Your task to perform on an android device: choose inbox layout in the gmail app Image 0: 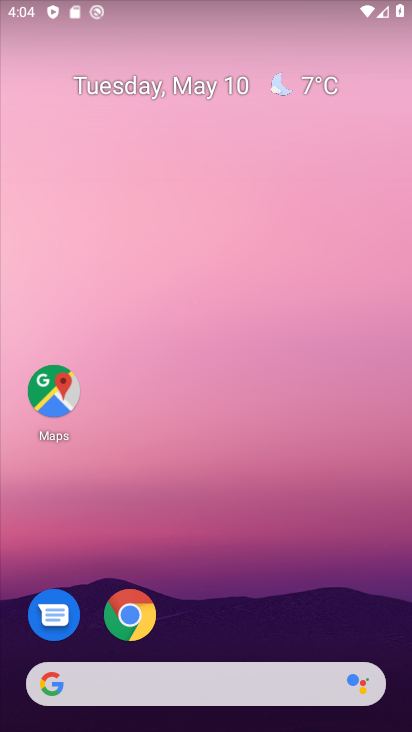
Step 0: drag from (241, 533) to (192, 63)
Your task to perform on an android device: choose inbox layout in the gmail app Image 1: 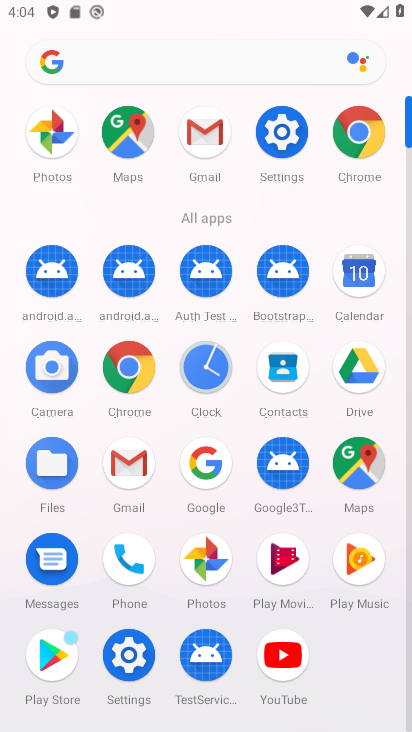
Step 1: drag from (3, 531) to (17, 269)
Your task to perform on an android device: choose inbox layout in the gmail app Image 2: 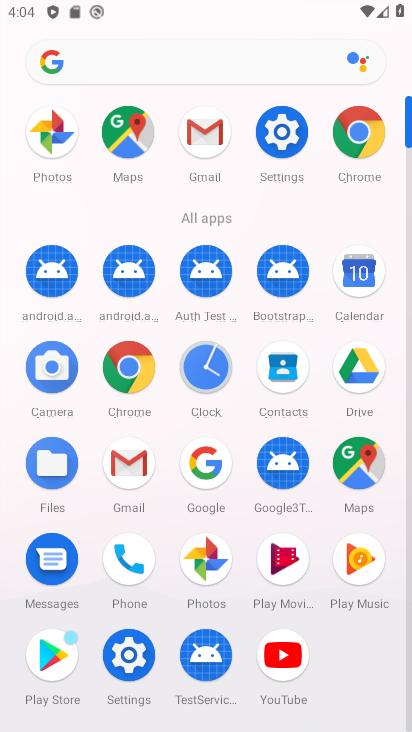
Step 2: click (128, 456)
Your task to perform on an android device: choose inbox layout in the gmail app Image 3: 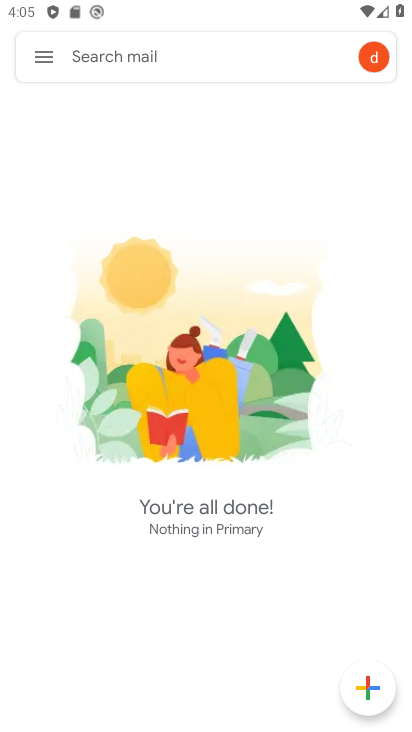
Step 3: click (32, 57)
Your task to perform on an android device: choose inbox layout in the gmail app Image 4: 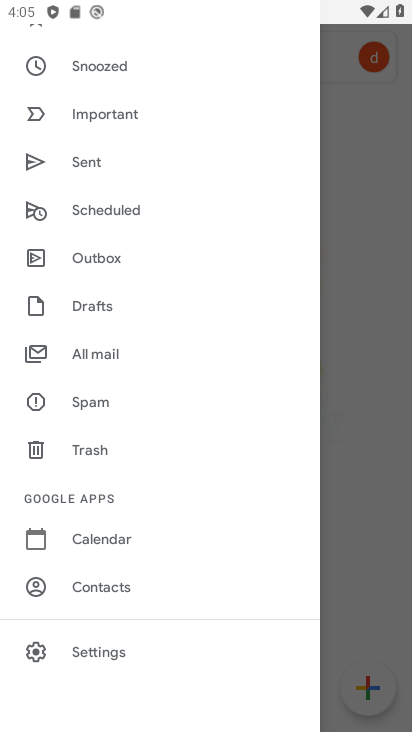
Step 4: drag from (171, 565) to (185, 183)
Your task to perform on an android device: choose inbox layout in the gmail app Image 5: 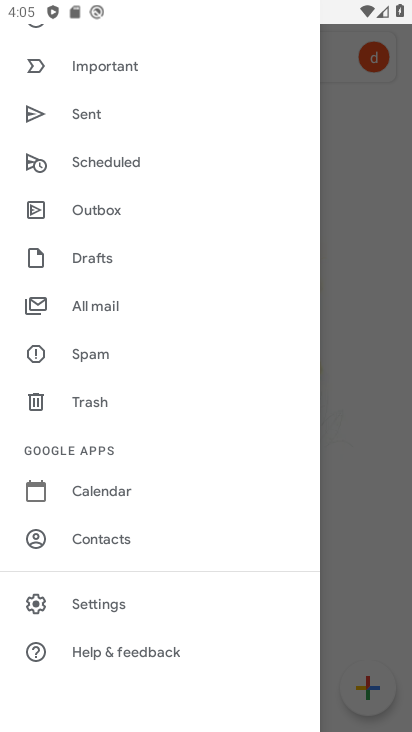
Step 5: click (130, 590)
Your task to perform on an android device: choose inbox layout in the gmail app Image 6: 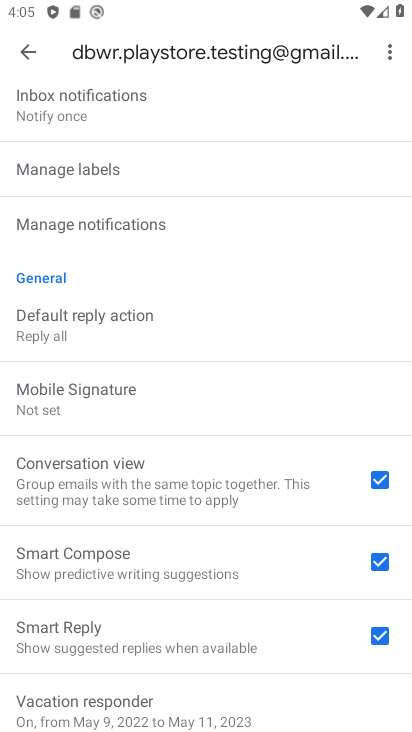
Step 6: drag from (207, 584) to (242, 199)
Your task to perform on an android device: choose inbox layout in the gmail app Image 7: 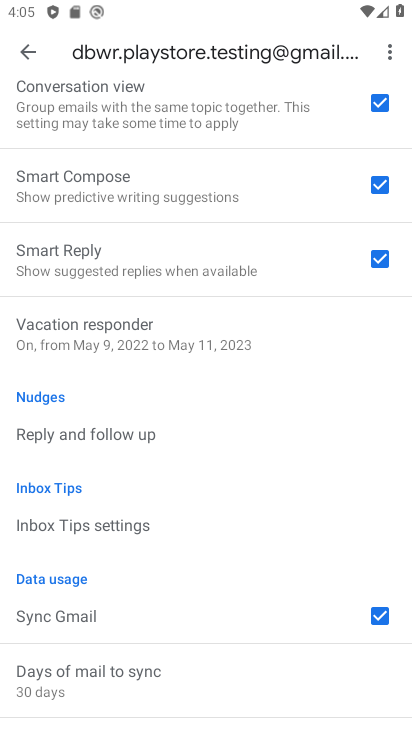
Step 7: drag from (182, 143) to (187, 636)
Your task to perform on an android device: choose inbox layout in the gmail app Image 8: 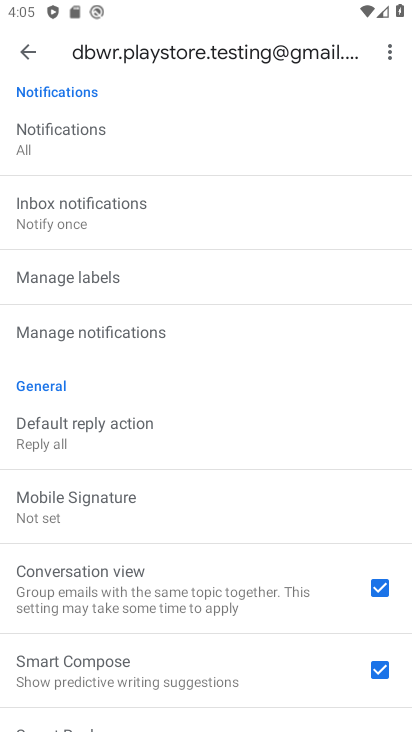
Step 8: drag from (133, 196) to (137, 559)
Your task to perform on an android device: choose inbox layout in the gmail app Image 9: 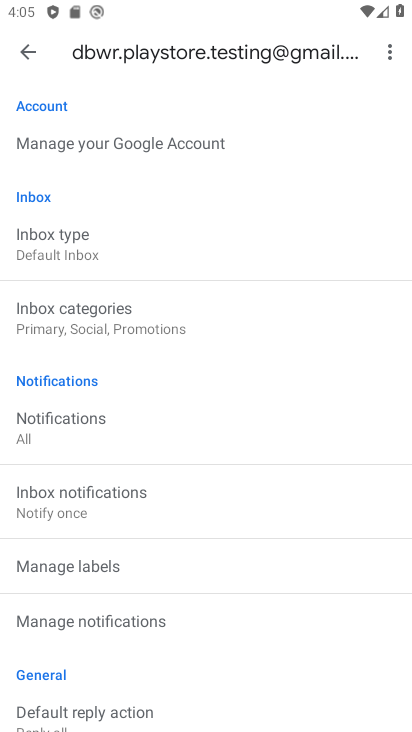
Step 9: click (88, 229)
Your task to perform on an android device: choose inbox layout in the gmail app Image 10: 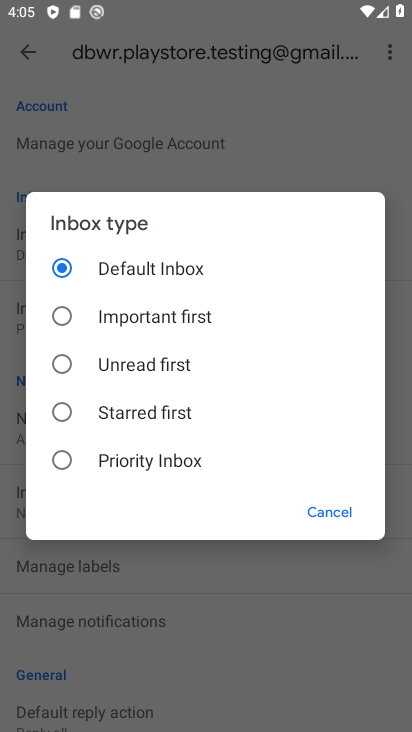
Step 10: click (118, 310)
Your task to perform on an android device: choose inbox layout in the gmail app Image 11: 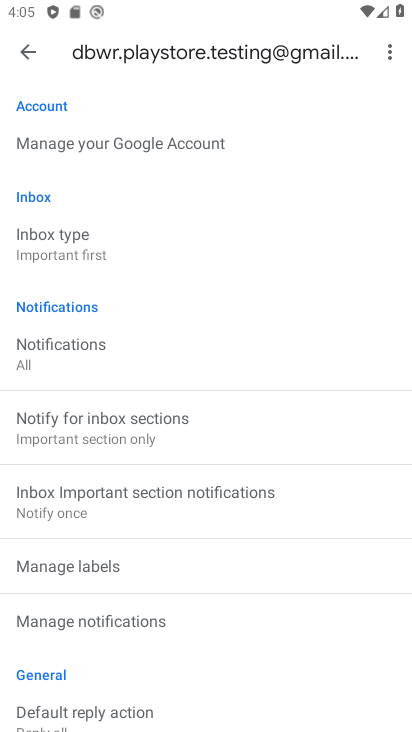
Step 11: task complete